Your task to perform on an android device: What is the news today? Image 0: 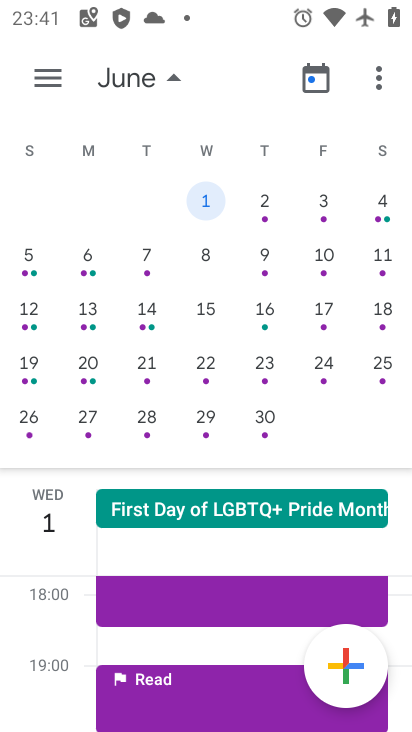
Step 0: press home button
Your task to perform on an android device: What is the news today? Image 1: 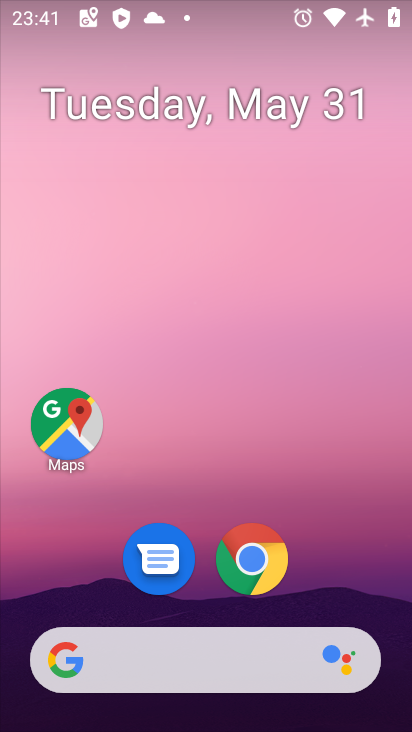
Step 1: drag from (198, 590) to (220, 88)
Your task to perform on an android device: What is the news today? Image 2: 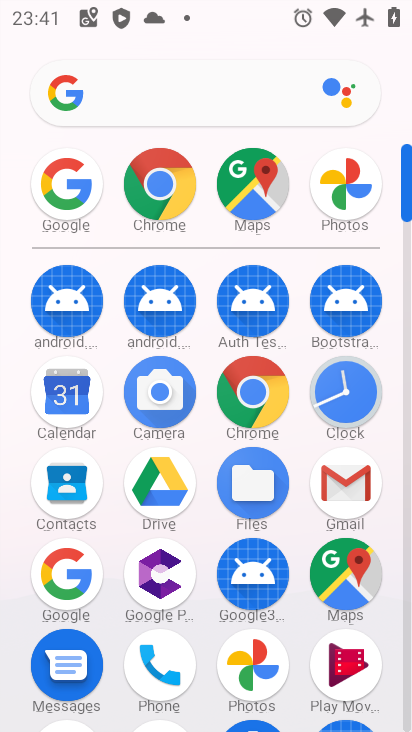
Step 2: click (71, 583)
Your task to perform on an android device: What is the news today? Image 3: 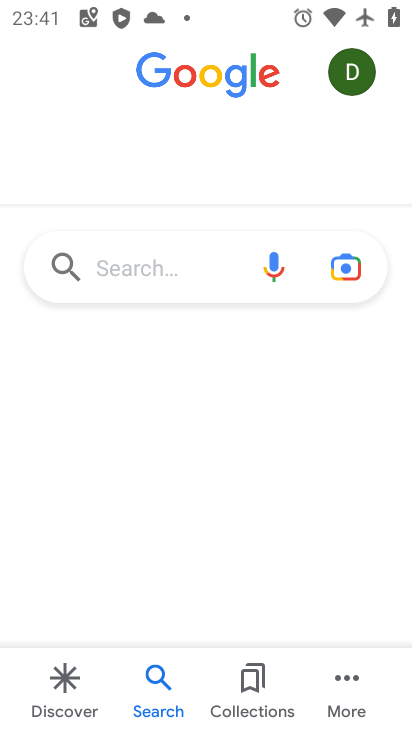
Step 3: click (152, 270)
Your task to perform on an android device: What is the news today? Image 4: 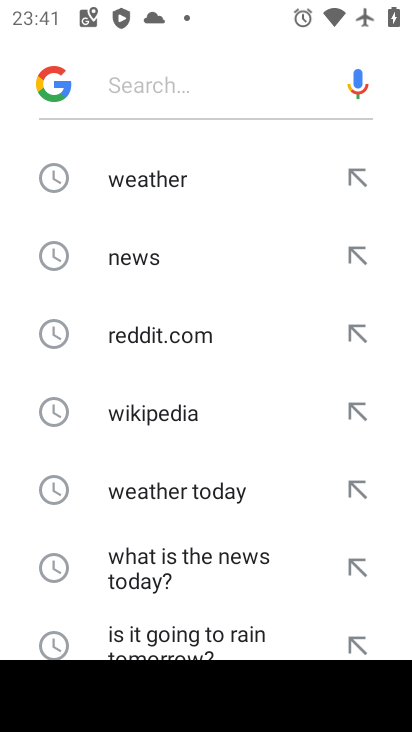
Step 4: click (161, 261)
Your task to perform on an android device: What is the news today? Image 5: 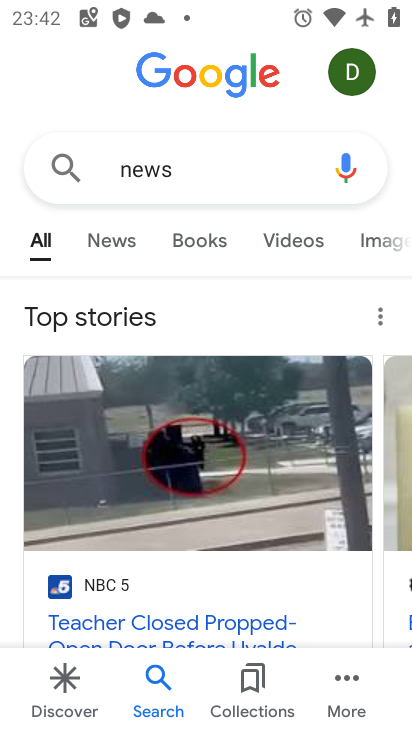
Step 5: task complete